Your task to perform on an android device: Open Google Chrome Image 0: 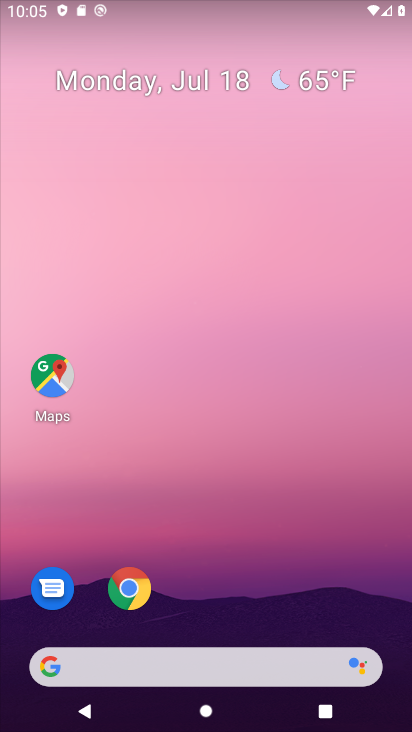
Step 0: press home button
Your task to perform on an android device: Open Google Chrome Image 1: 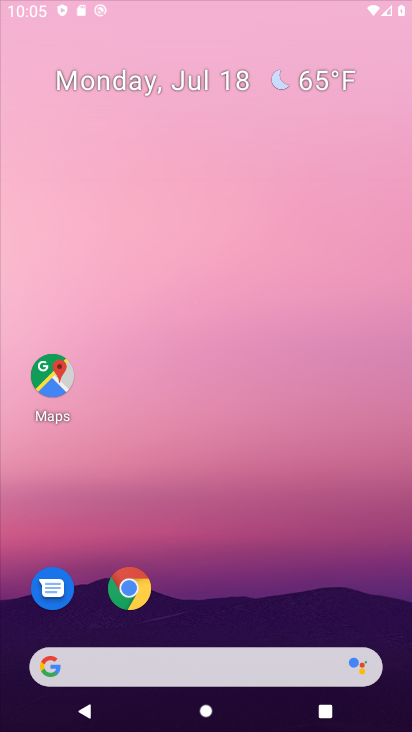
Step 1: press home button
Your task to perform on an android device: Open Google Chrome Image 2: 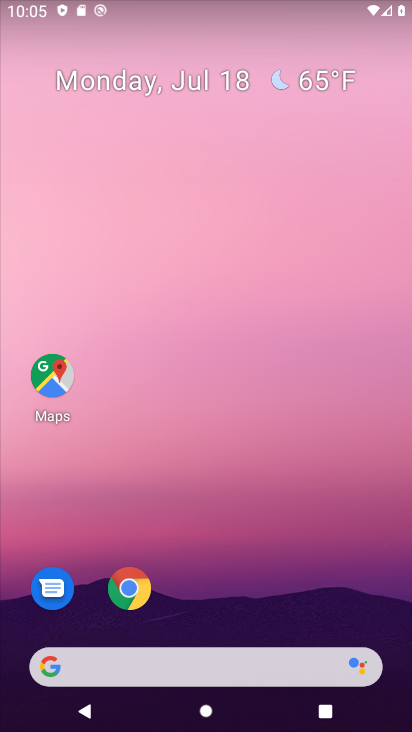
Step 2: click (126, 593)
Your task to perform on an android device: Open Google Chrome Image 3: 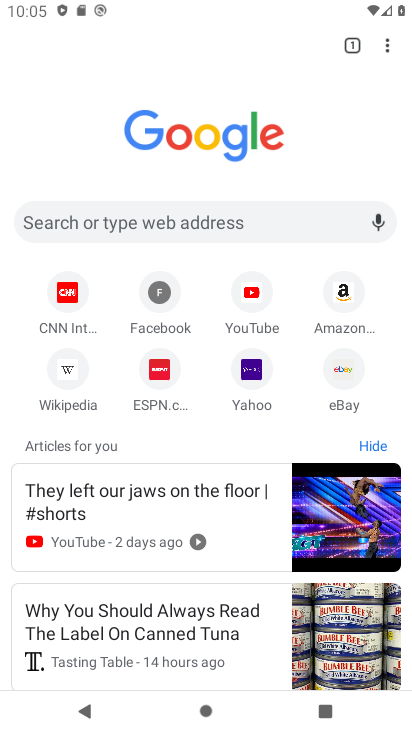
Step 3: task complete